Your task to perform on an android device: Open privacy settings Image 0: 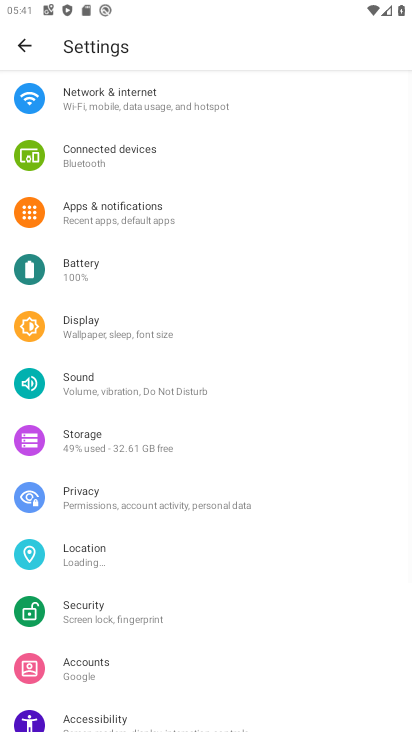
Step 0: click (360, 635)
Your task to perform on an android device: Open privacy settings Image 1: 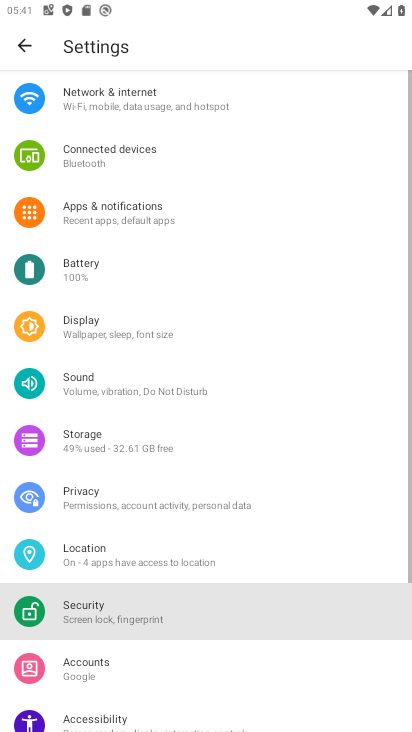
Step 1: press home button
Your task to perform on an android device: Open privacy settings Image 2: 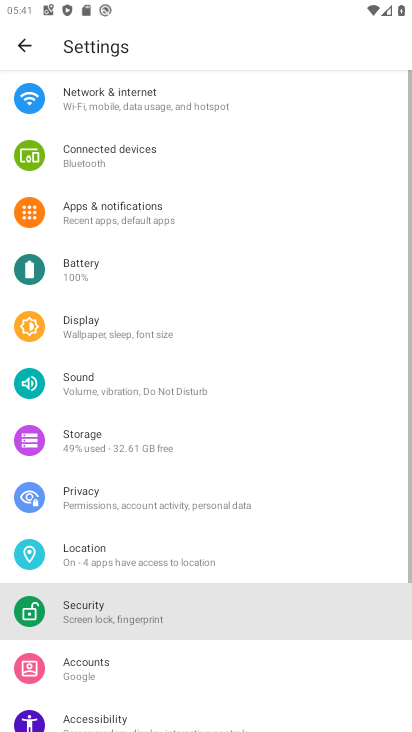
Step 2: drag from (360, 635) to (337, 537)
Your task to perform on an android device: Open privacy settings Image 3: 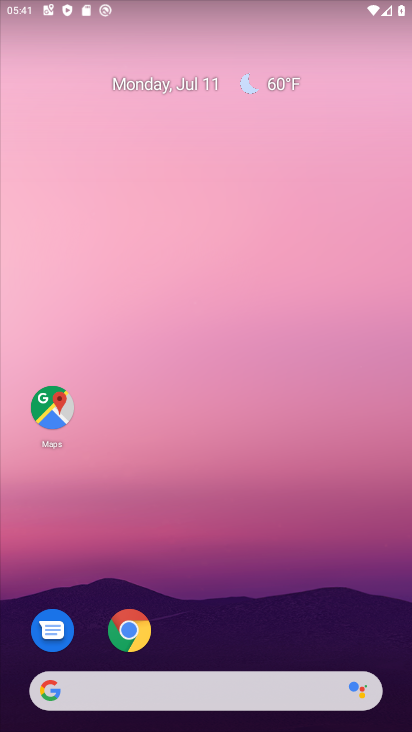
Step 3: drag from (222, 570) to (136, 14)
Your task to perform on an android device: Open privacy settings Image 4: 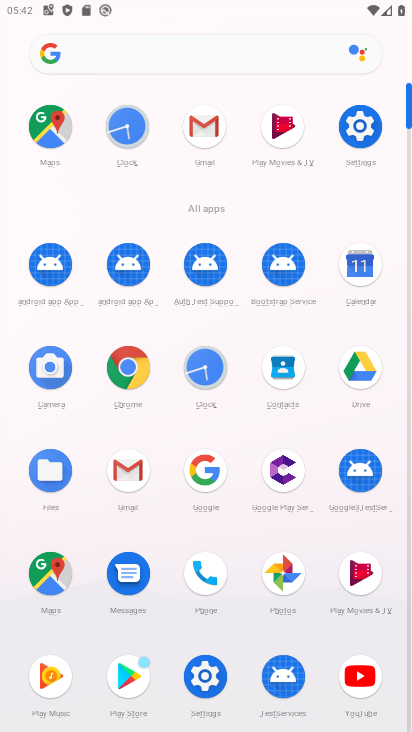
Step 4: click (199, 674)
Your task to perform on an android device: Open privacy settings Image 5: 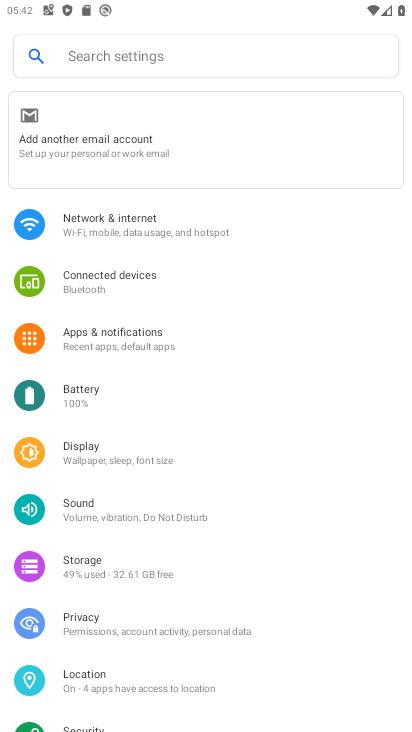
Step 5: drag from (104, 547) to (199, 200)
Your task to perform on an android device: Open privacy settings Image 6: 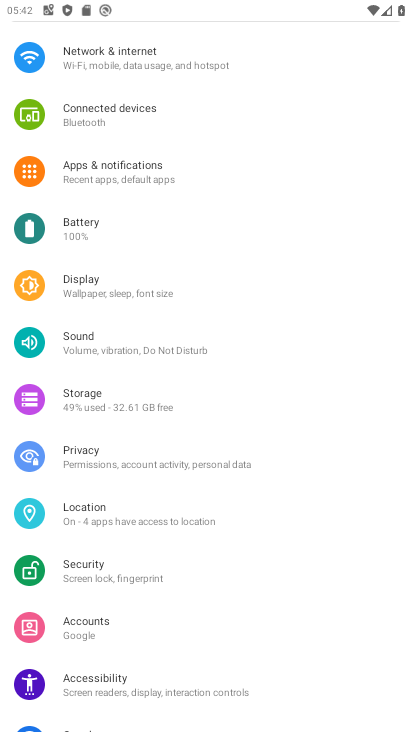
Step 6: click (111, 464)
Your task to perform on an android device: Open privacy settings Image 7: 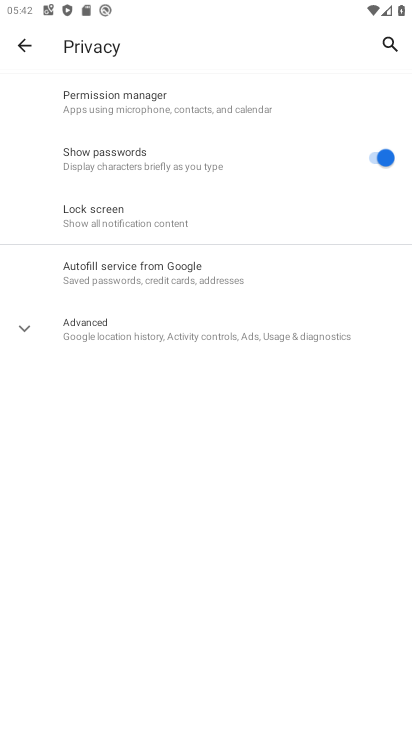
Step 7: task complete